Your task to perform on an android device: find photos in the google photos app Image 0: 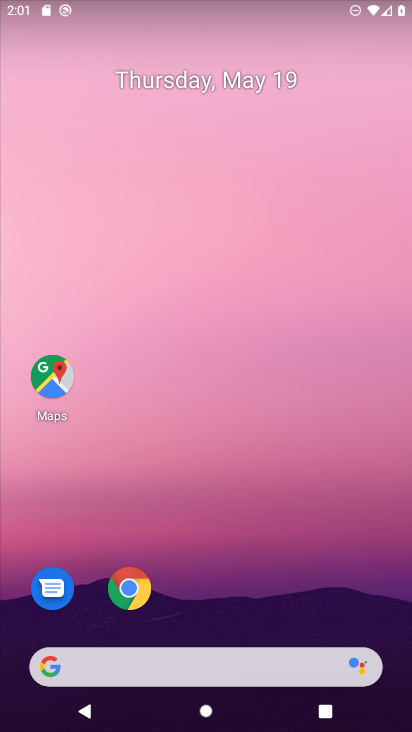
Step 0: drag from (375, 624) to (330, 26)
Your task to perform on an android device: find photos in the google photos app Image 1: 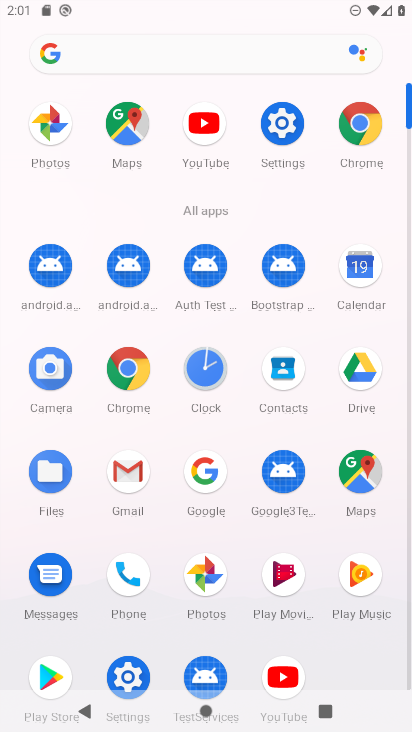
Step 1: click (44, 129)
Your task to perform on an android device: find photos in the google photos app Image 2: 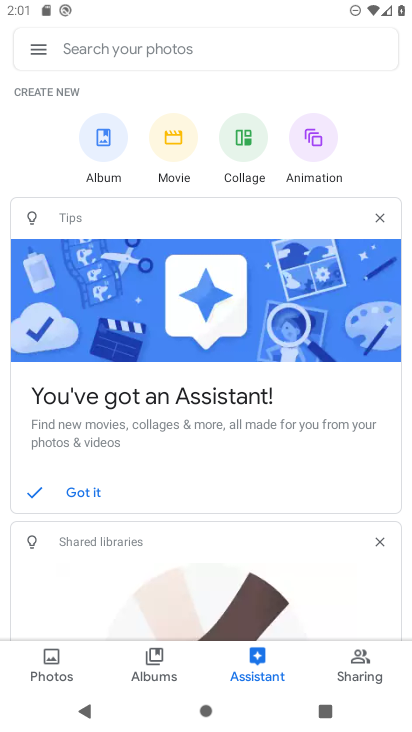
Step 2: click (59, 655)
Your task to perform on an android device: find photos in the google photos app Image 3: 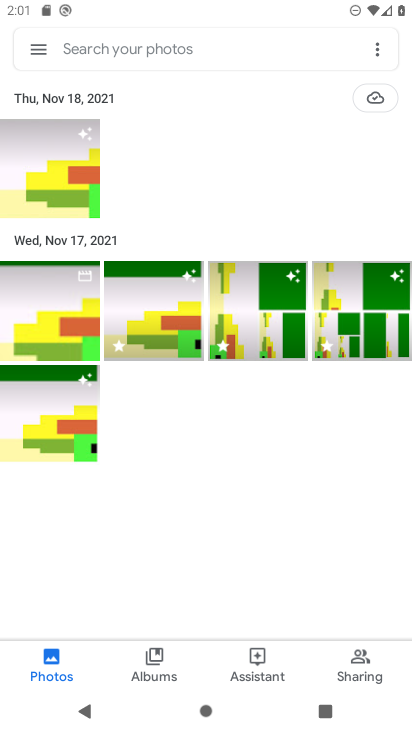
Step 3: task complete